Your task to perform on an android device: Open Chrome and go to the settings page Image 0: 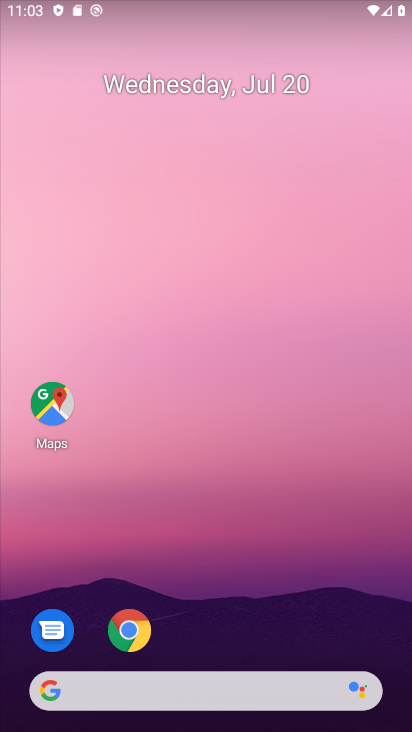
Step 0: click (130, 626)
Your task to perform on an android device: Open Chrome and go to the settings page Image 1: 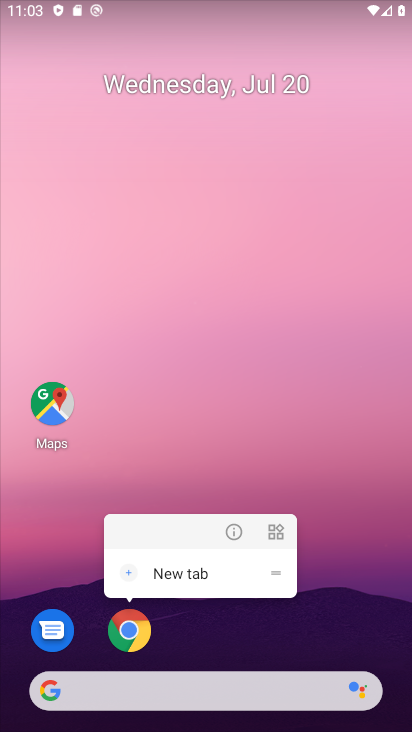
Step 1: click (130, 626)
Your task to perform on an android device: Open Chrome and go to the settings page Image 2: 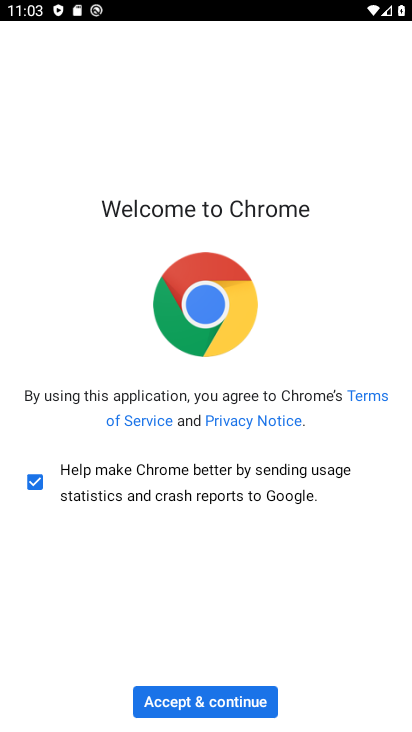
Step 2: click (196, 697)
Your task to perform on an android device: Open Chrome and go to the settings page Image 3: 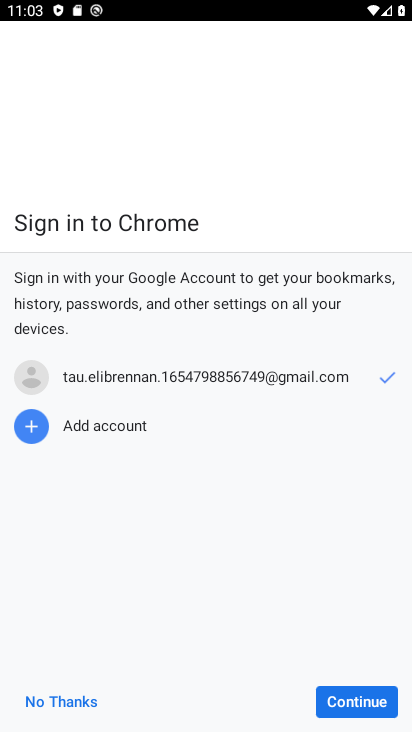
Step 3: click (364, 700)
Your task to perform on an android device: Open Chrome and go to the settings page Image 4: 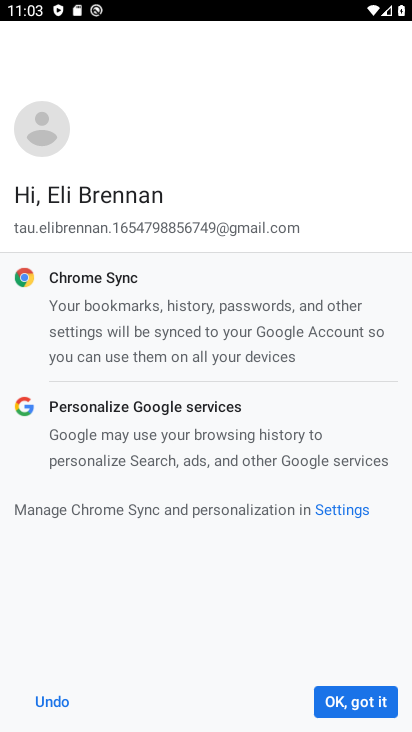
Step 4: click (363, 703)
Your task to perform on an android device: Open Chrome and go to the settings page Image 5: 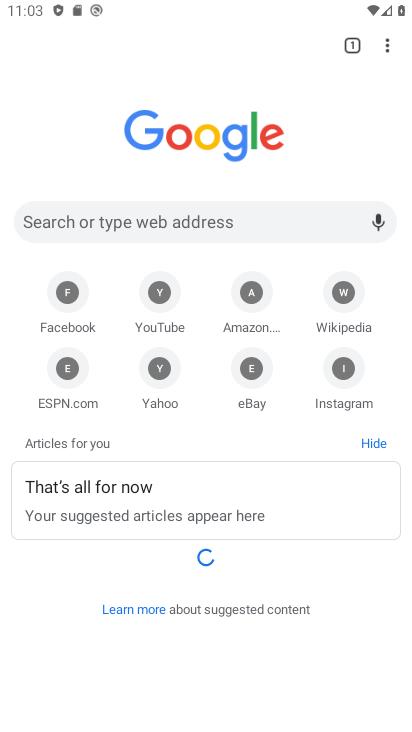
Step 5: click (386, 42)
Your task to perform on an android device: Open Chrome and go to the settings page Image 6: 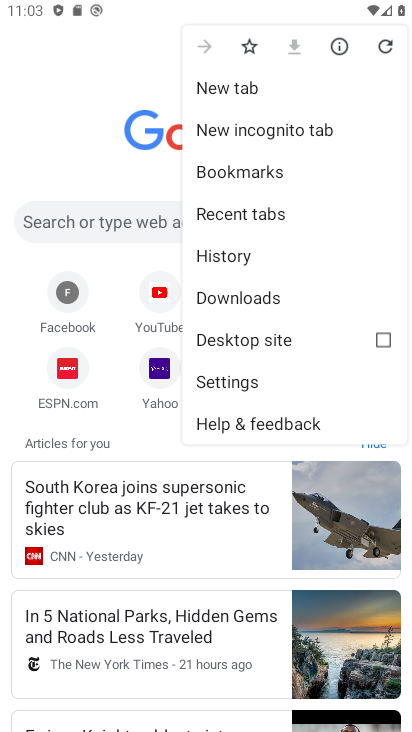
Step 6: click (278, 377)
Your task to perform on an android device: Open Chrome and go to the settings page Image 7: 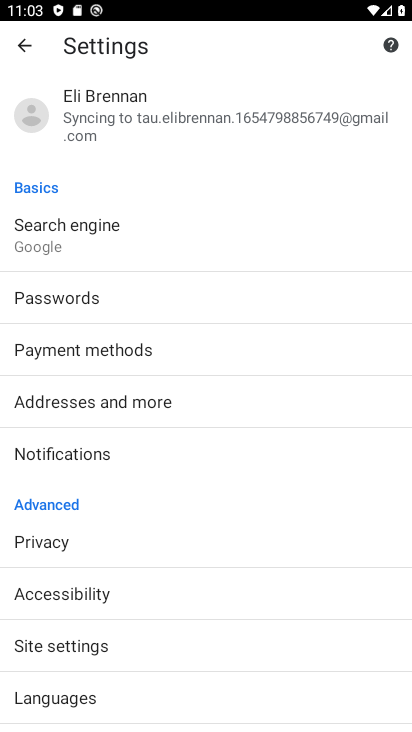
Step 7: task complete